Your task to perform on an android device: Go to accessibility settings Image 0: 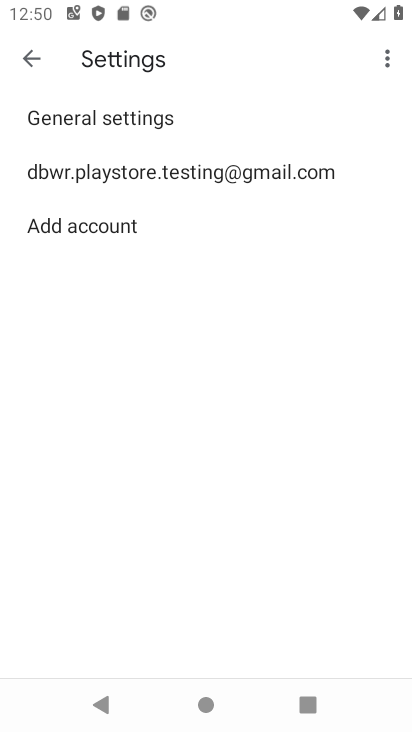
Step 0: press home button
Your task to perform on an android device: Go to accessibility settings Image 1: 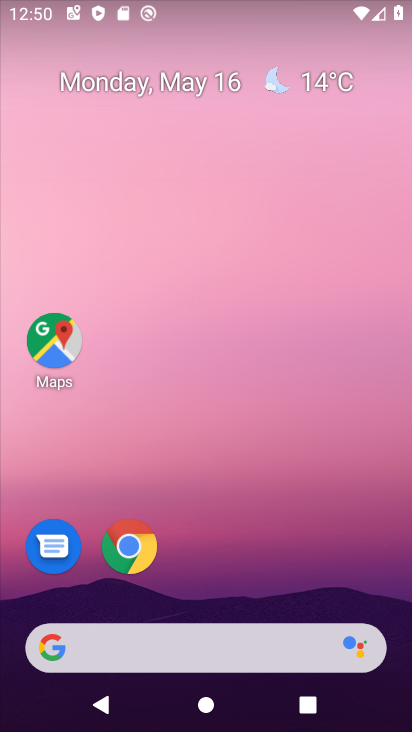
Step 1: drag from (285, 687) to (259, 306)
Your task to perform on an android device: Go to accessibility settings Image 2: 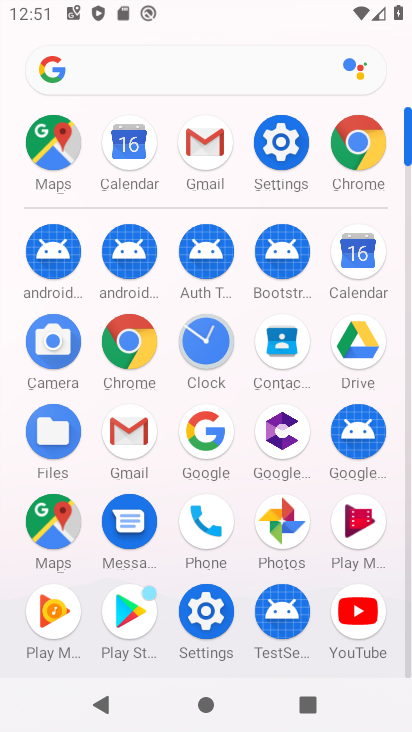
Step 2: click (287, 134)
Your task to perform on an android device: Go to accessibility settings Image 3: 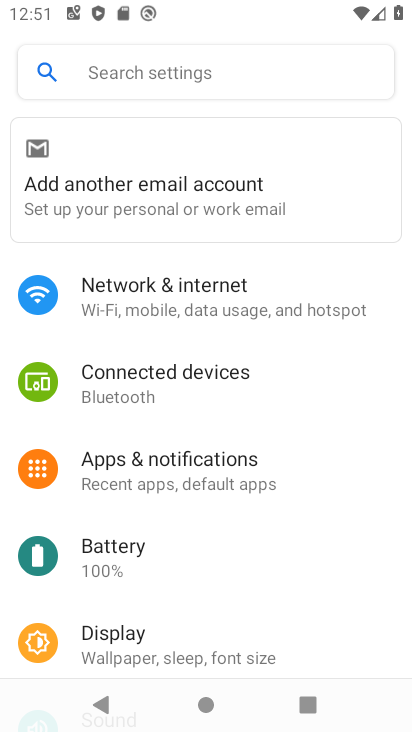
Step 3: click (162, 72)
Your task to perform on an android device: Go to accessibility settings Image 4: 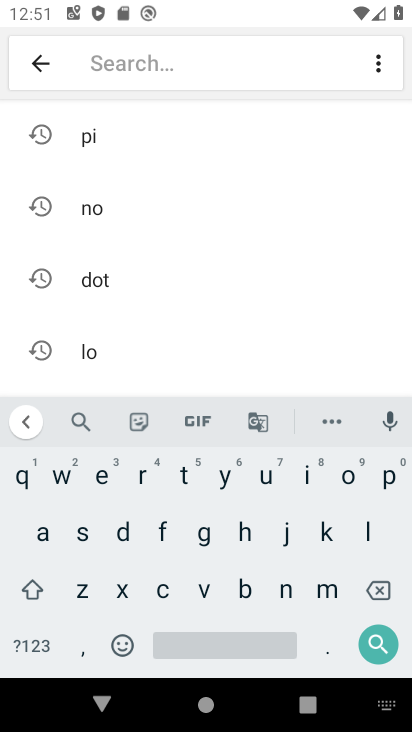
Step 4: click (33, 530)
Your task to perform on an android device: Go to accessibility settings Image 5: 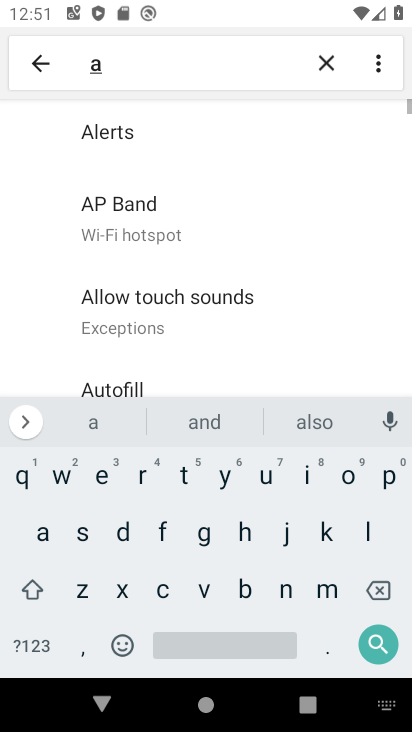
Step 5: click (162, 586)
Your task to perform on an android device: Go to accessibility settings Image 6: 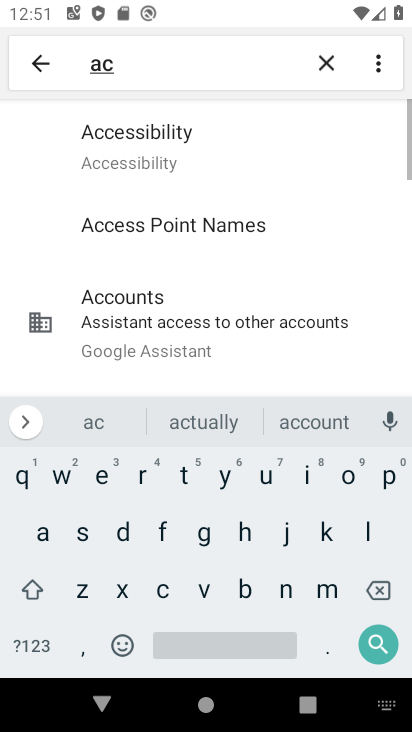
Step 6: click (217, 151)
Your task to perform on an android device: Go to accessibility settings Image 7: 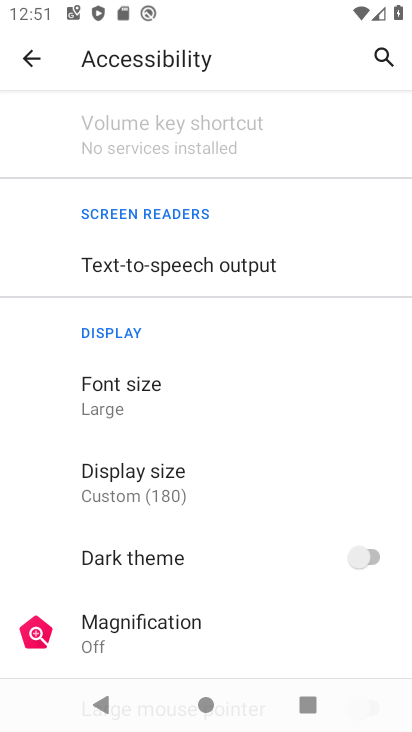
Step 7: task complete